Your task to perform on an android device: Go to settings Image 0: 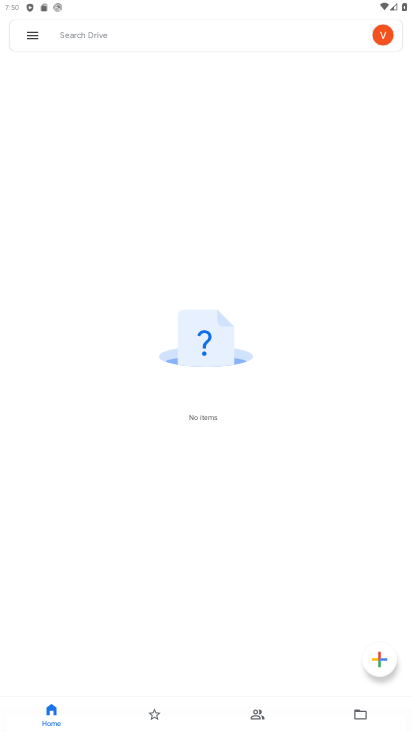
Step 0: press home button
Your task to perform on an android device: Go to settings Image 1: 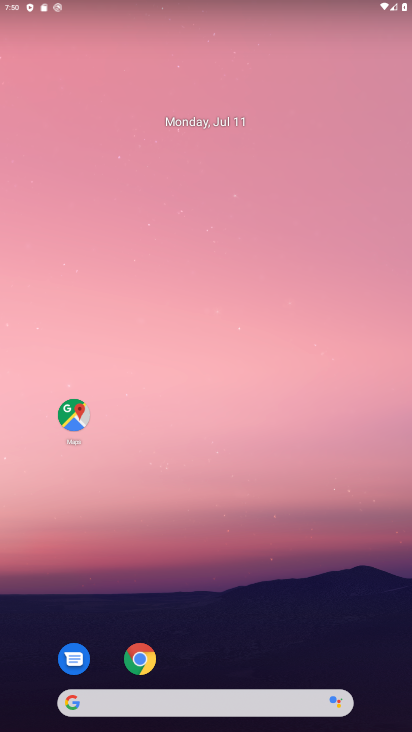
Step 1: drag from (29, 697) to (219, 189)
Your task to perform on an android device: Go to settings Image 2: 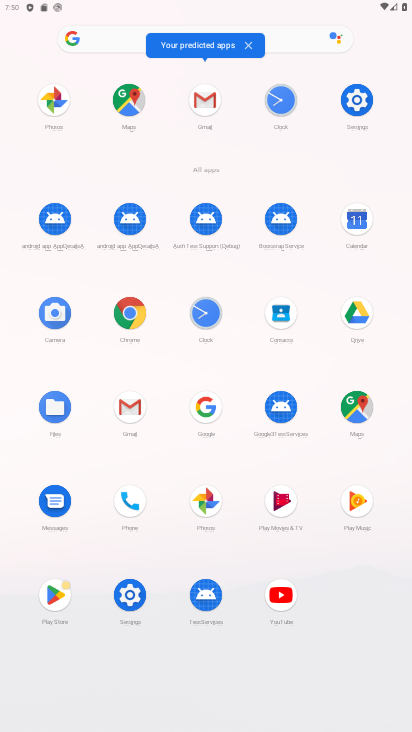
Step 2: click (127, 598)
Your task to perform on an android device: Go to settings Image 3: 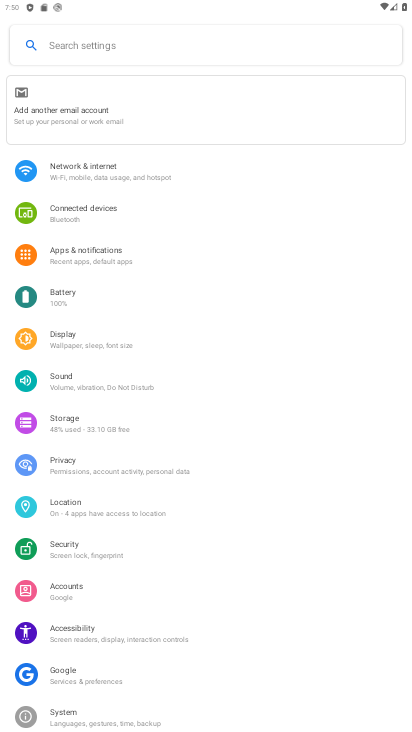
Step 3: task complete